Your task to perform on an android device: turn off airplane mode Image 0: 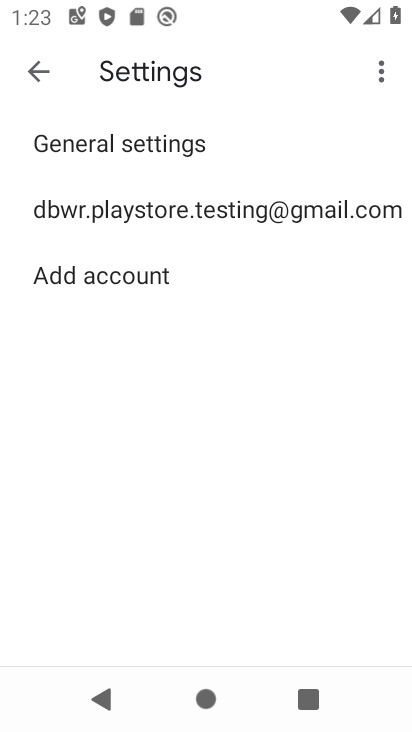
Step 0: press home button
Your task to perform on an android device: turn off airplane mode Image 1: 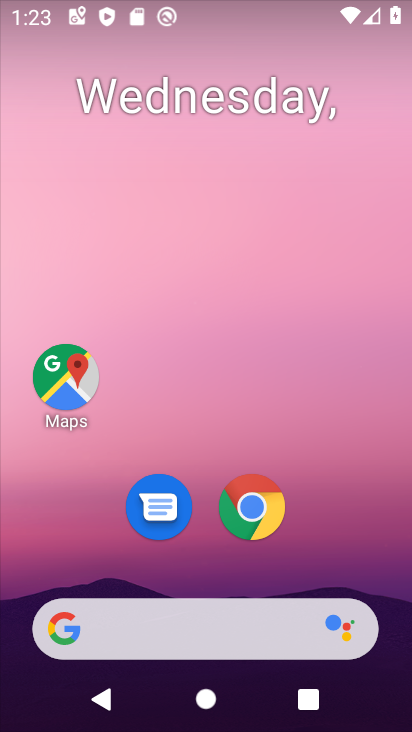
Step 1: drag from (339, 498) to (309, 133)
Your task to perform on an android device: turn off airplane mode Image 2: 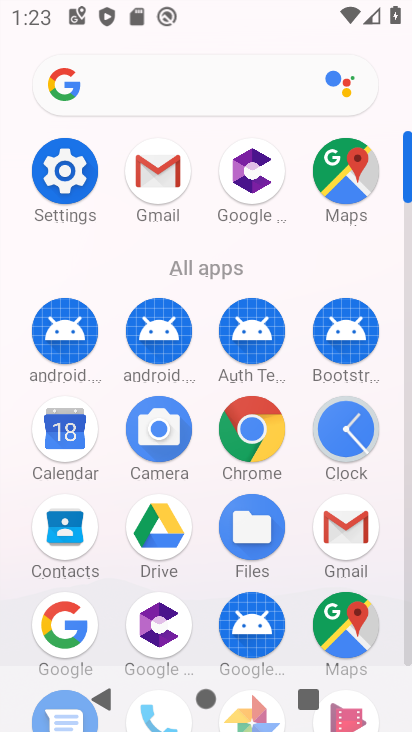
Step 2: click (45, 180)
Your task to perform on an android device: turn off airplane mode Image 3: 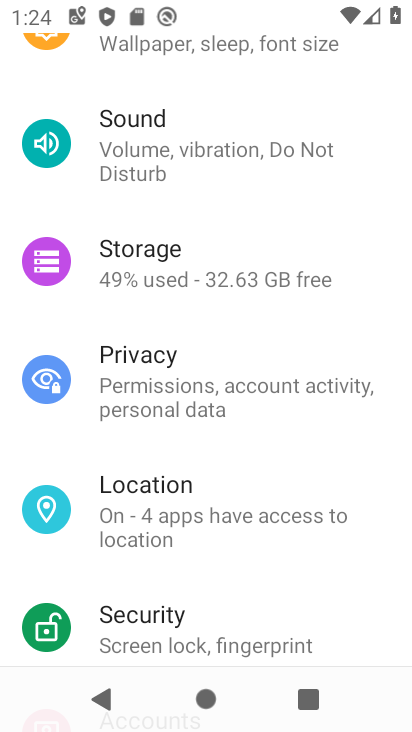
Step 3: drag from (288, 175) to (287, 581)
Your task to perform on an android device: turn off airplane mode Image 4: 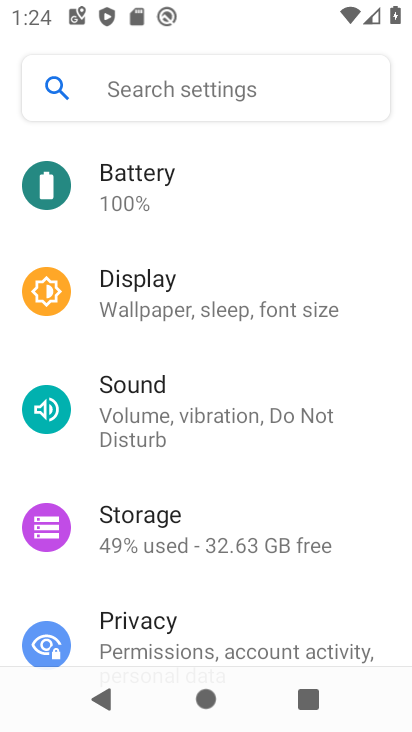
Step 4: drag from (276, 243) to (276, 631)
Your task to perform on an android device: turn off airplane mode Image 5: 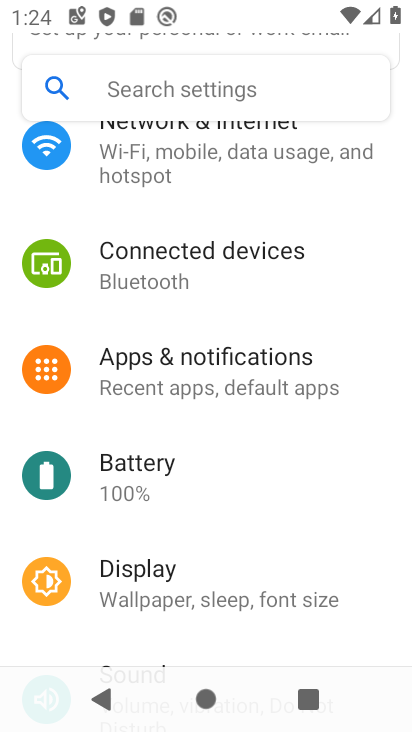
Step 5: drag from (252, 197) to (252, 585)
Your task to perform on an android device: turn off airplane mode Image 6: 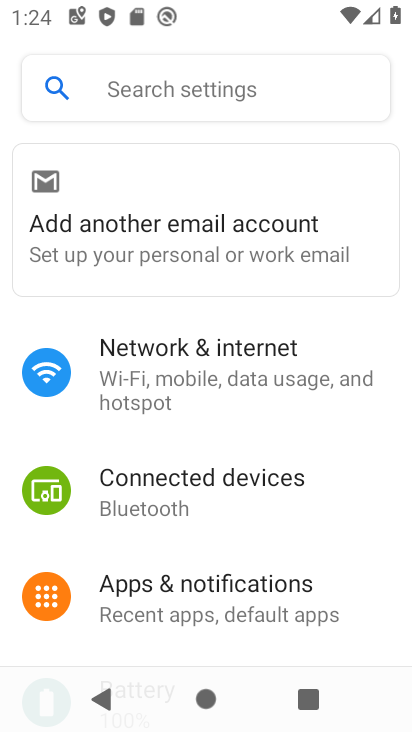
Step 6: click (228, 357)
Your task to perform on an android device: turn off airplane mode Image 7: 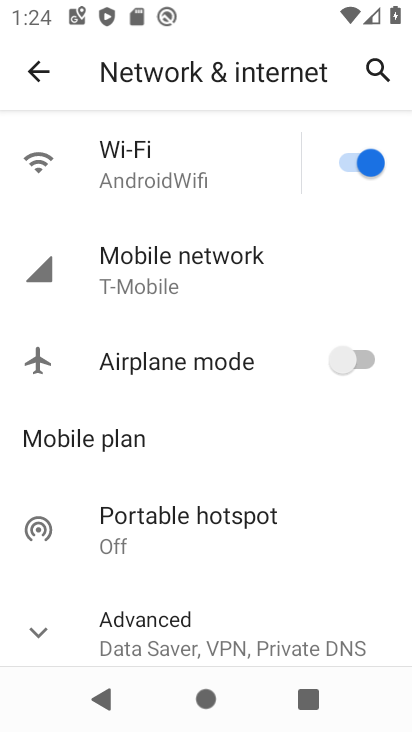
Step 7: task complete